Your task to perform on an android device: Play the last video I watched on Youtube Image 0: 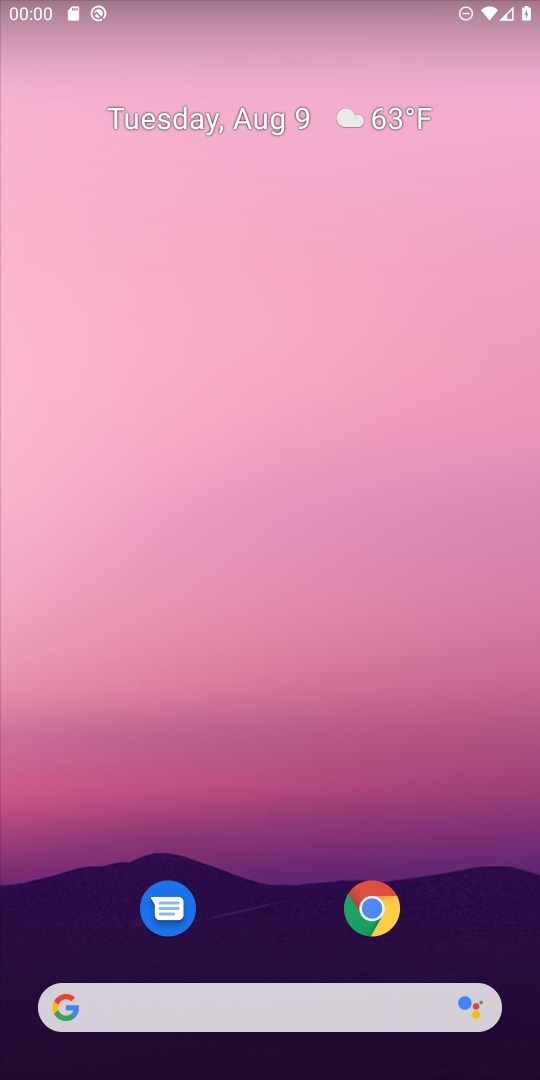
Step 0: drag from (284, 945) to (220, 201)
Your task to perform on an android device: Play the last video I watched on Youtube Image 1: 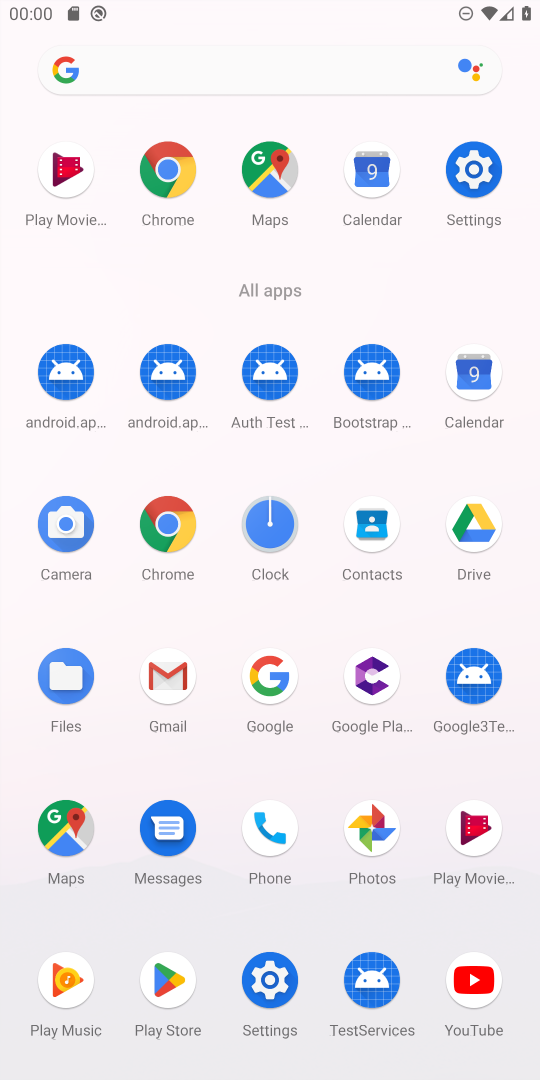
Step 1: click (478, 1004)
Your task to perform on an android device: Play the last video I watched on Youtube Image 2: 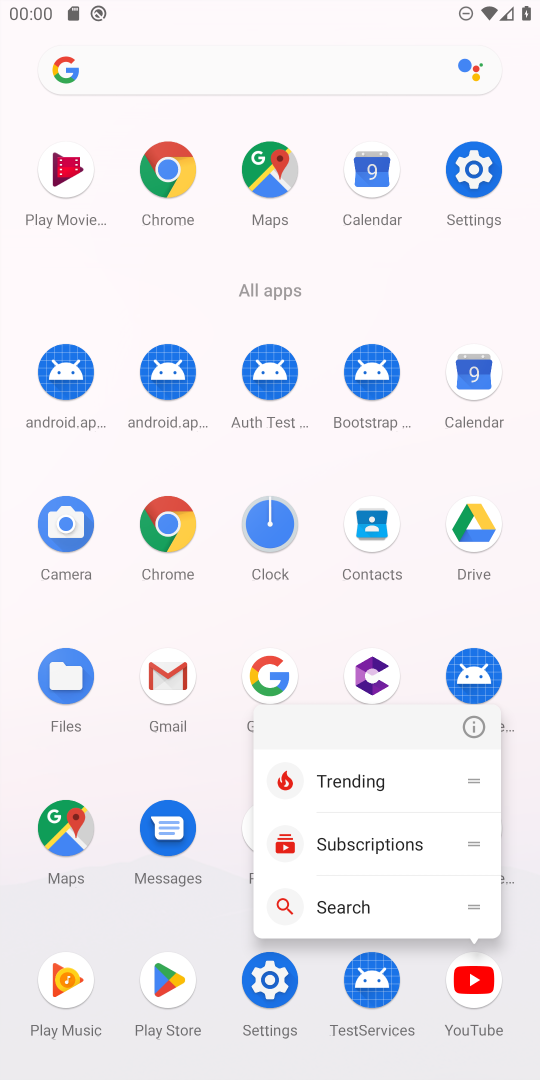
Step 2: click (477, 986)
Your task to perform on an android device: Play the last video I watched on Youtube Image 3: 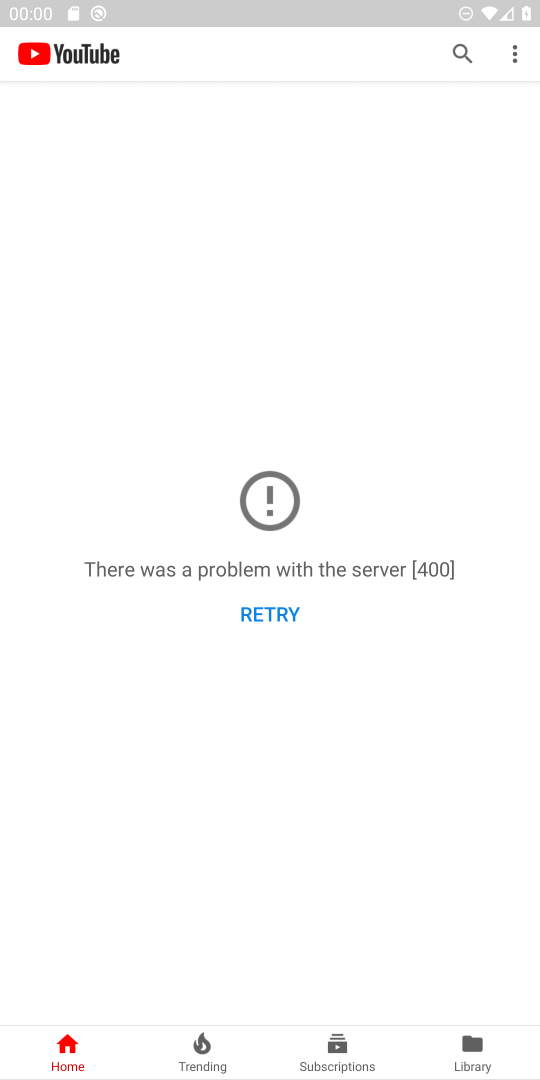
Step 3: click (475, 1051)
Your task to perform on an android device: Play the last video I watched on Youtube Image 4: 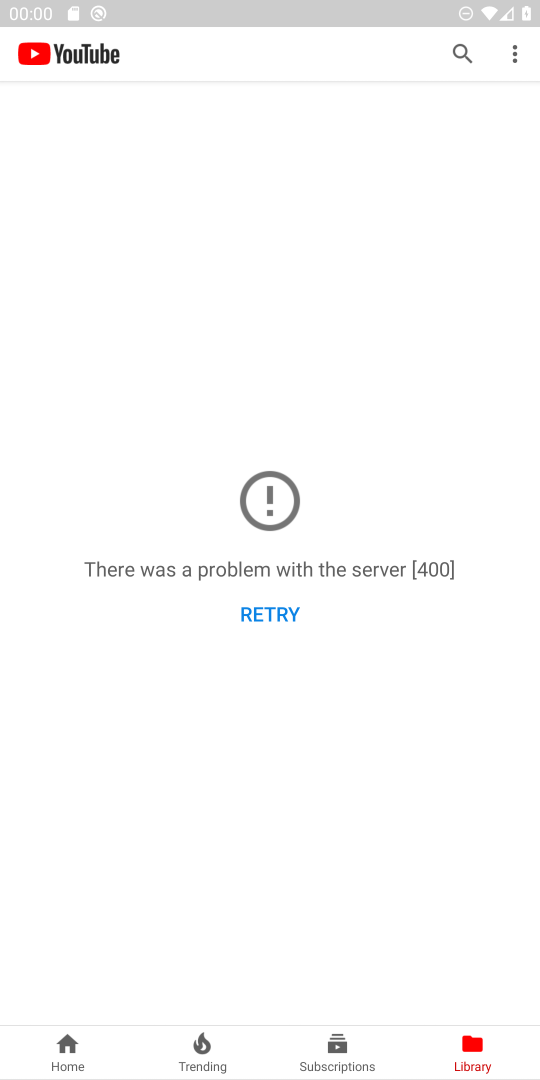
Step 4: task complete